Your task to perform on an android device: Check the settings for the Amazon Music app Image 0: 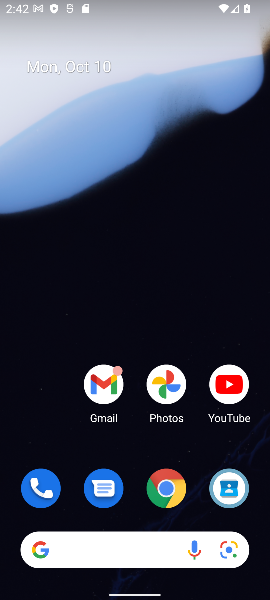
Step 0: drag from (135, 454) to (162, 51)
Your task to perform on an android device: Check the settings for the Amazon Music app Image 1: 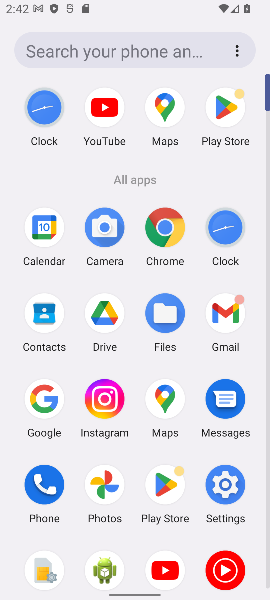
Step 1: task complete